Your task to perform on an android device: Go to display settings Image 0: 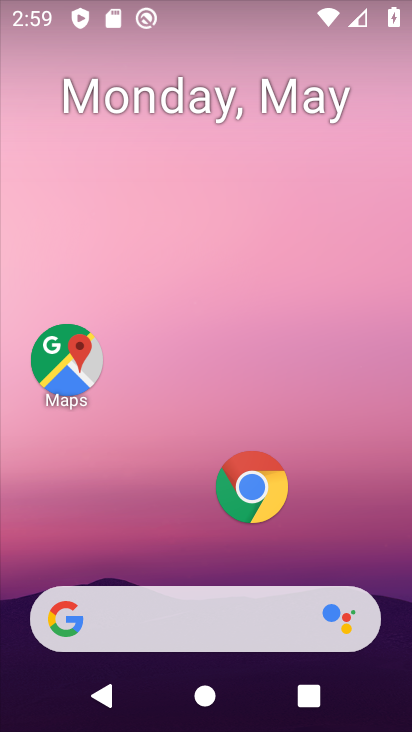
Step 0: drag from (145, 575) to (144, 10)
Your task to perform on an android device: Go to display settings Image 1: 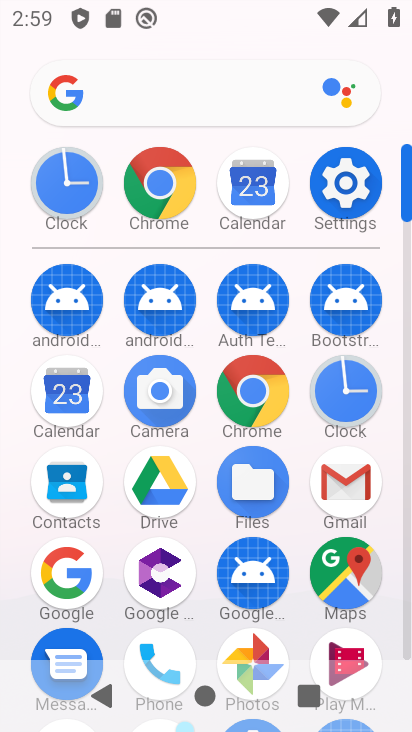
Step 1: click (345, 181)
Your task to perform on an android device: Go to display settings Image 2: 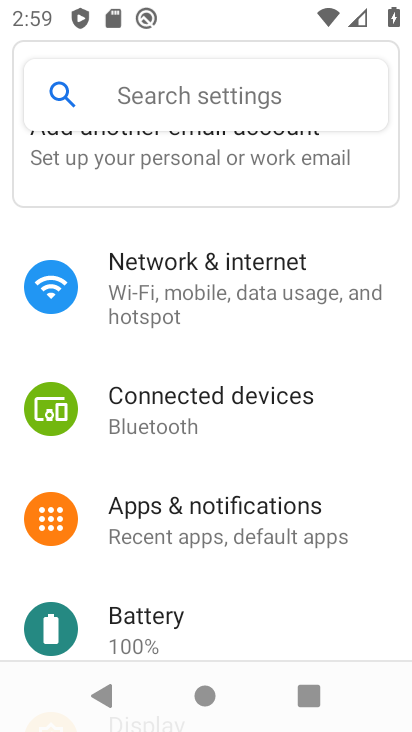
Step 2: drag from (186, 559) to (188, 265)
Your task to perform on an android device: Go to display settings Image 3: 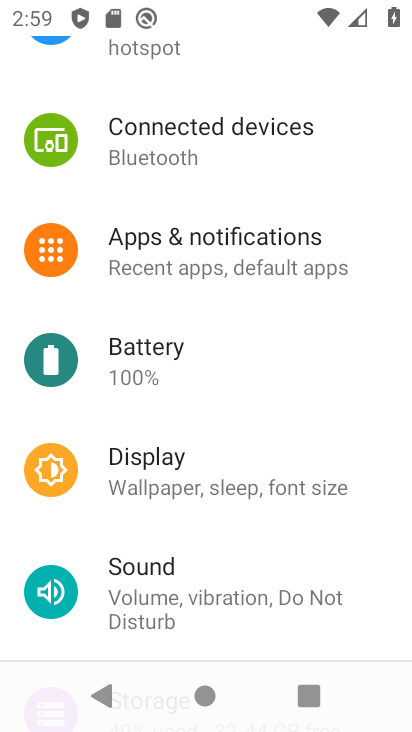
Step 3: click (162, 478)
Your task to perform on an android device: Go to display settings Image 4: 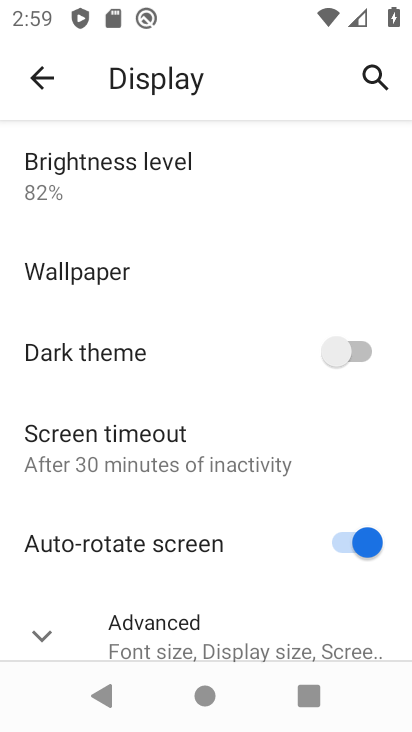
Step 4: task complete